Your task to perform on an android device: Search for Mexican restaurants on Maps Image 0: 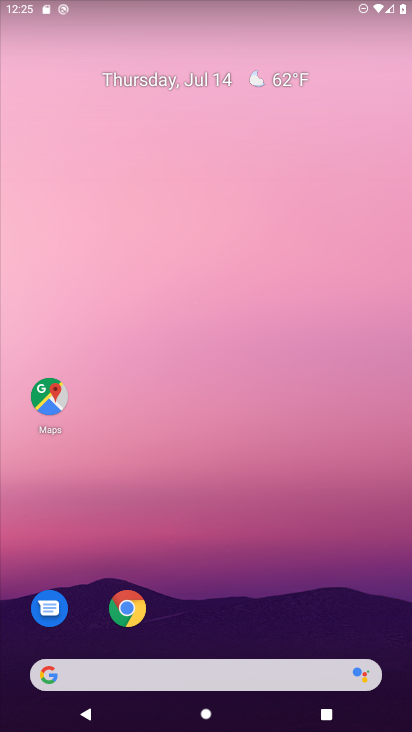
Step 0: drag from (225, 662) to (181, 117)
Your task to perform on an android device: Search for Mexican restaurants on Maps Image 1: 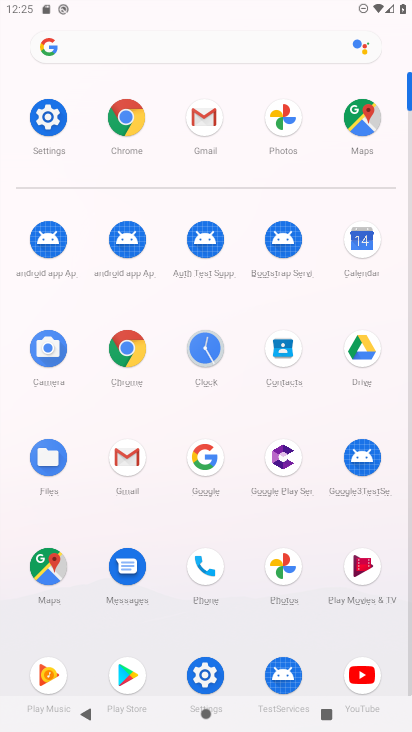
Step 1: click (48, 567)
Your task to perform on an android device: Search for Mexican restaurants on Maps Image 2: 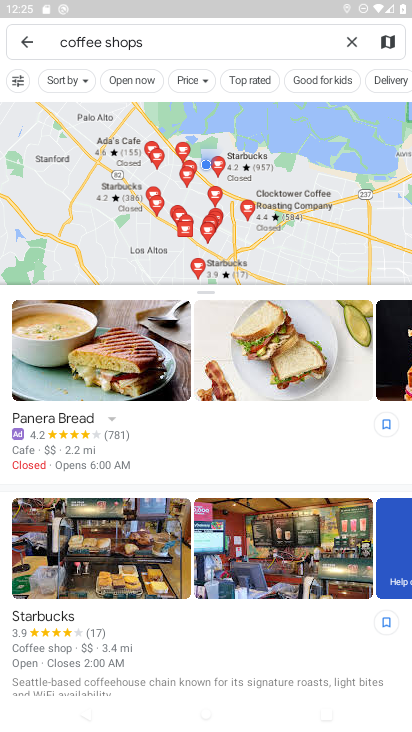
Step 2: click (350, 37)
Your task to perform on an android device: Search for Mexican restaurants on Maps Image 3: 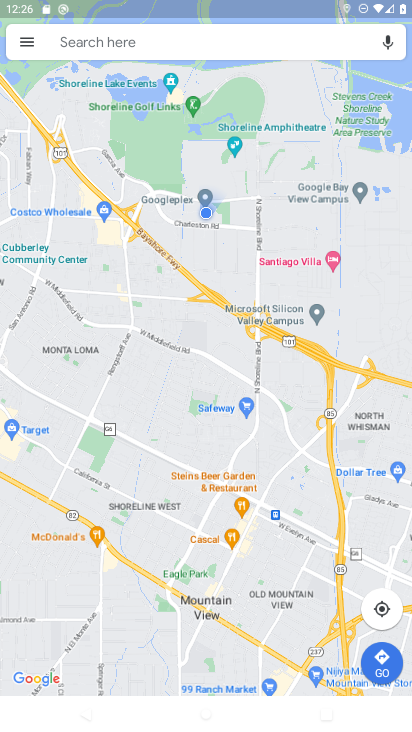
Step 3: click (232, 40)
Your task to perform on an android device: Search for Mexican restaurants on Maps Image 4: 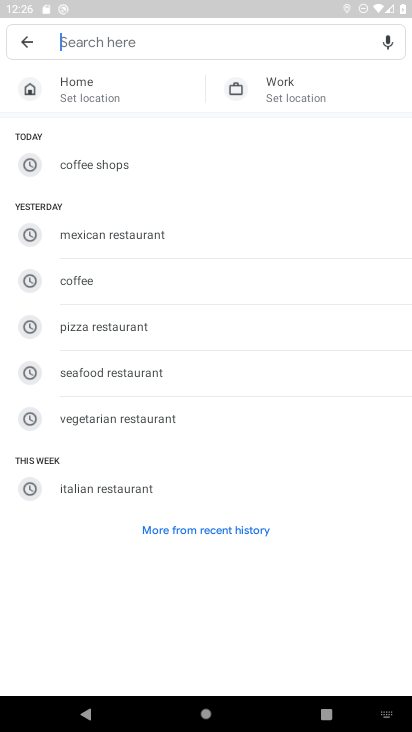
Step 4: type "Mexican restaurnats"
Your task to perform on an android device: Search for Mexican restaurants on Maps Image 5: 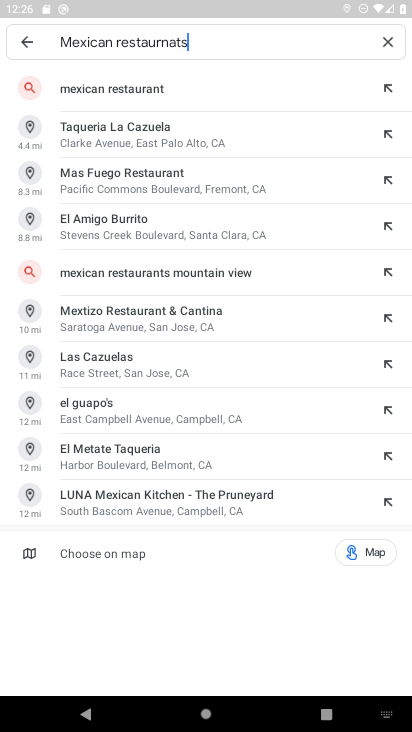
Step 5: click (119, 93)
Your task to perform on an android device: Search for Mexican restaurants on Maps Image 6: 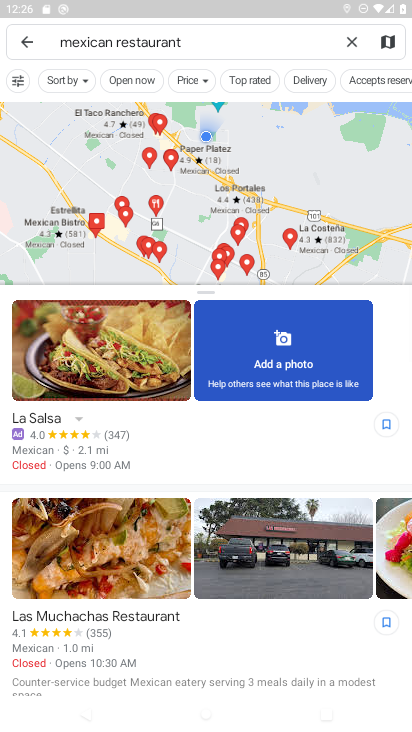
Step 6: task complete